Your task to perform on an android device: Show me popular videos on Youtube Image 0: 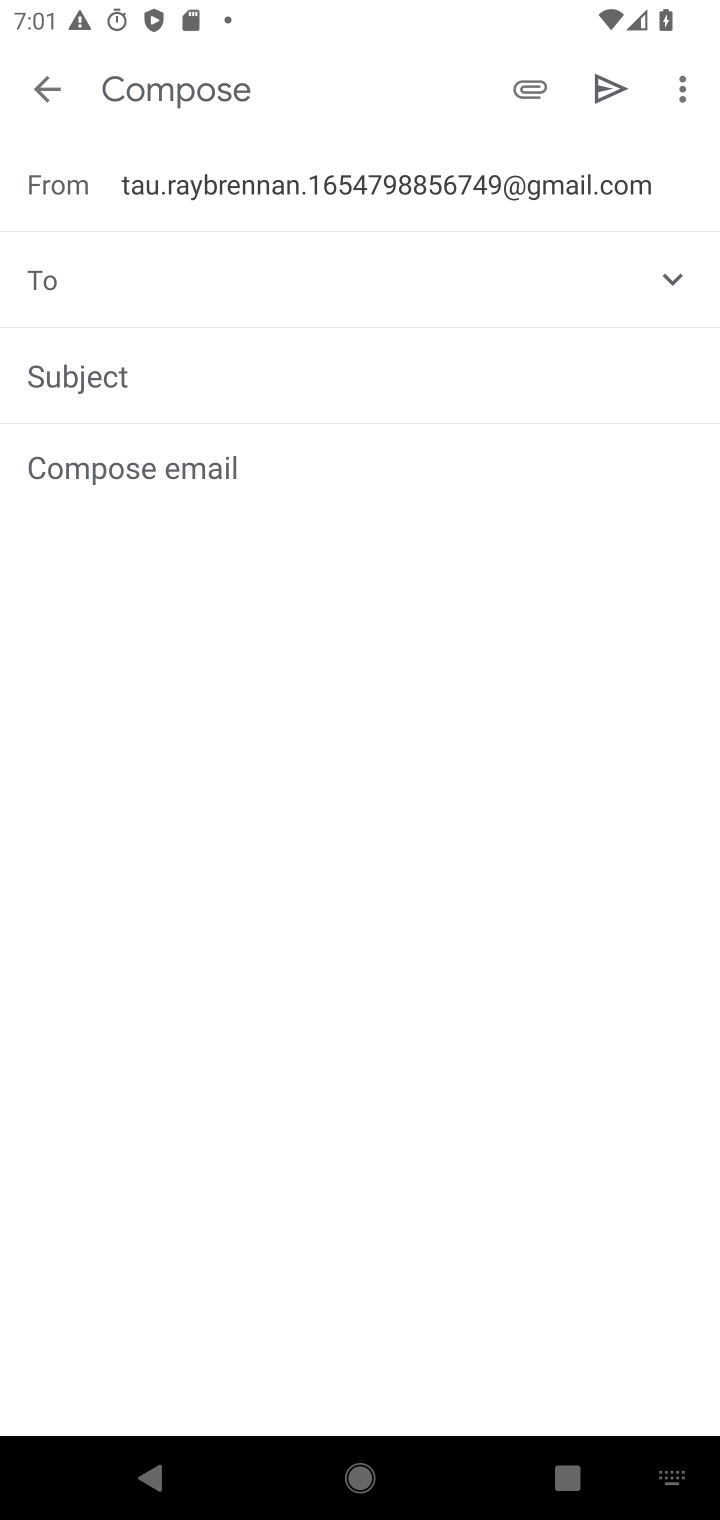
Step 0: press home button
Your task to perform on an android device: Show me popular videos on Youtube Image 1: 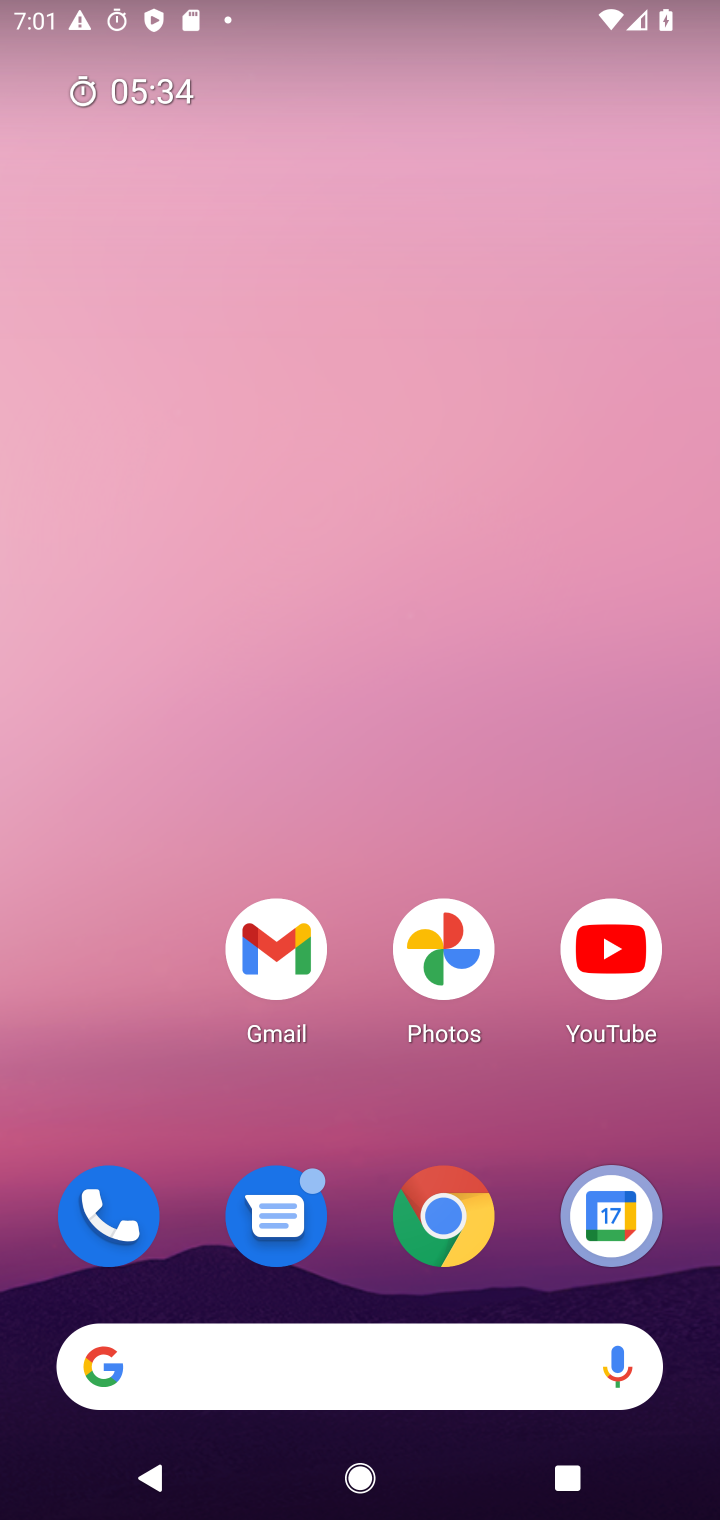
Step 1: drag from (538, 978) to (513, 66)
Your task to perform on an android device: Show me popular videos on Youtube Image 2: 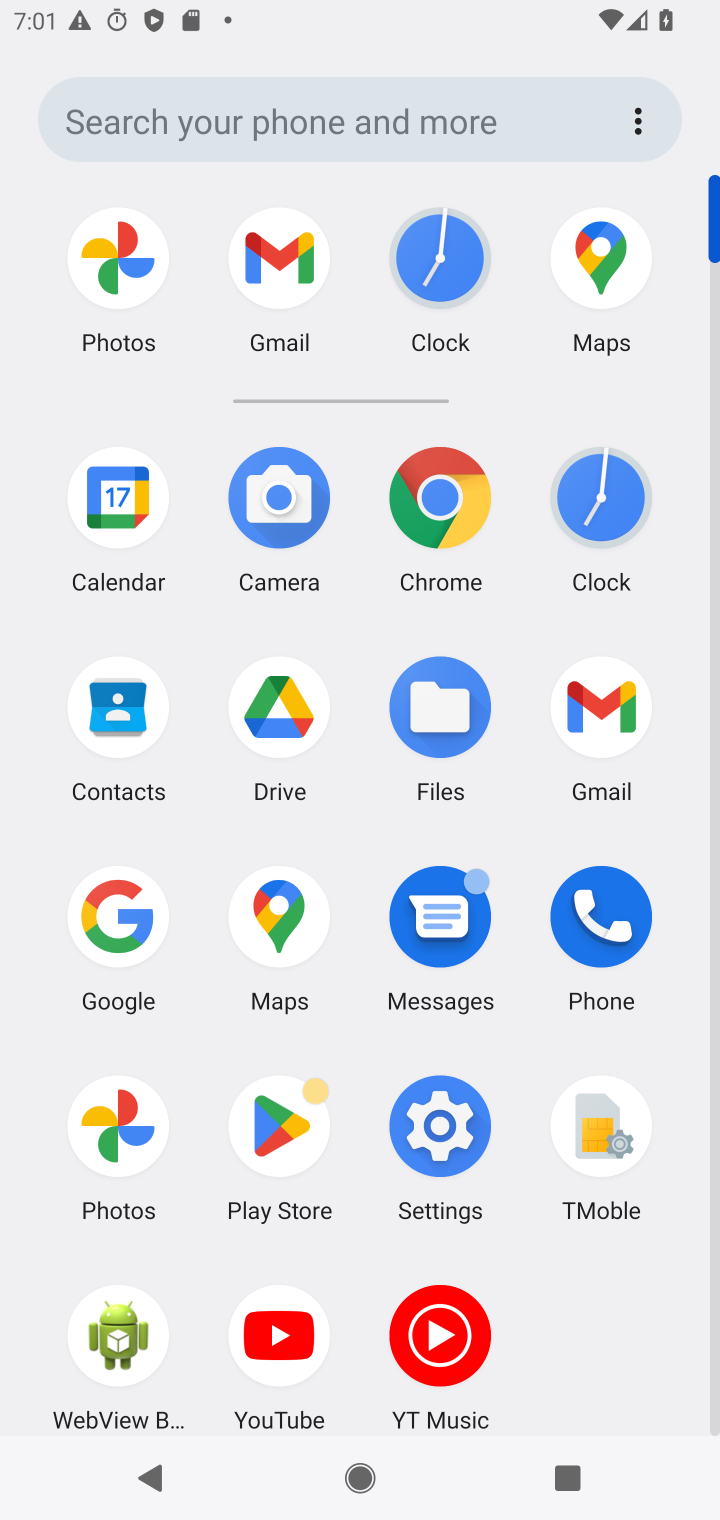
Step 2: click (282, 1339)
Your task to perform on an android device: Show me popular videos on Youtube Image 3: 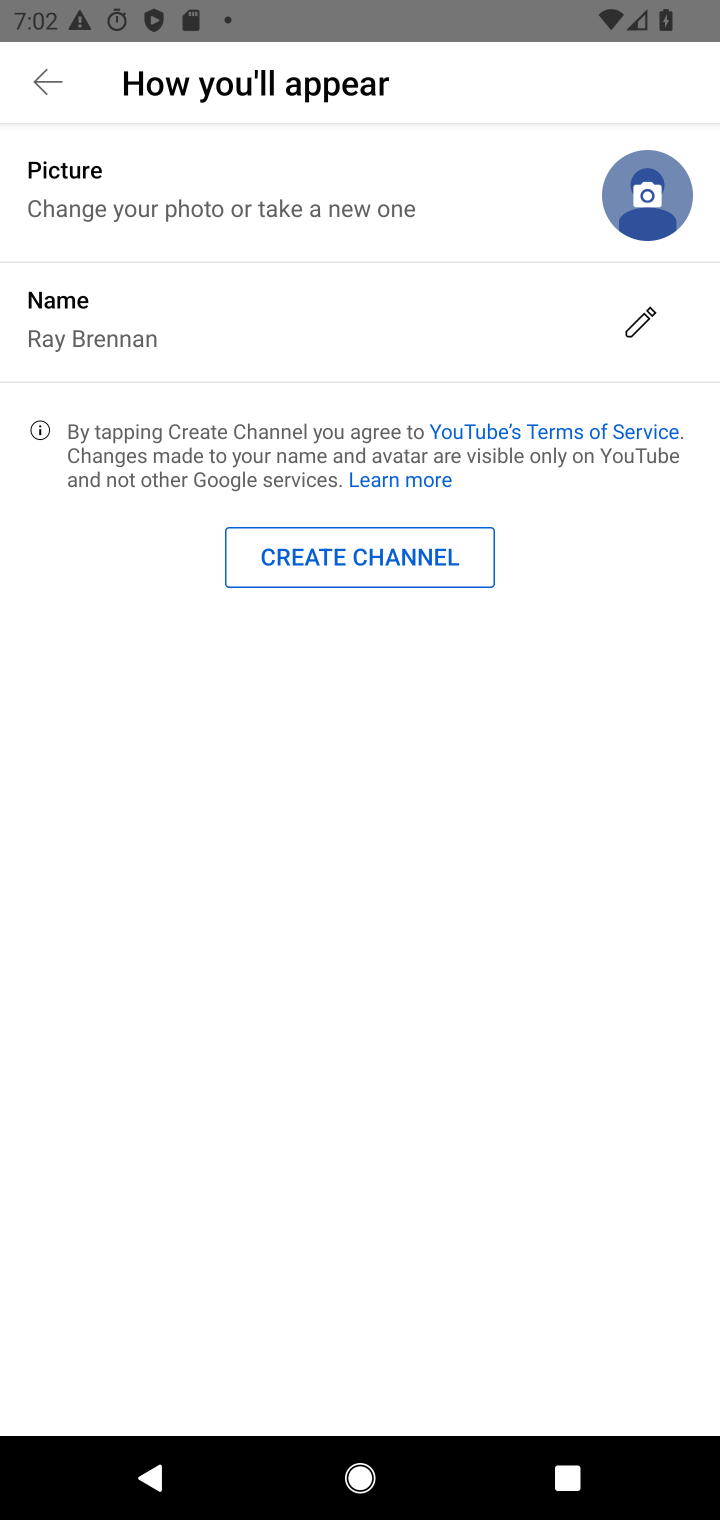
Step 3: click (39, 75)
Your task to perform on an android device: Show me popular videos on Youtube Image 4: 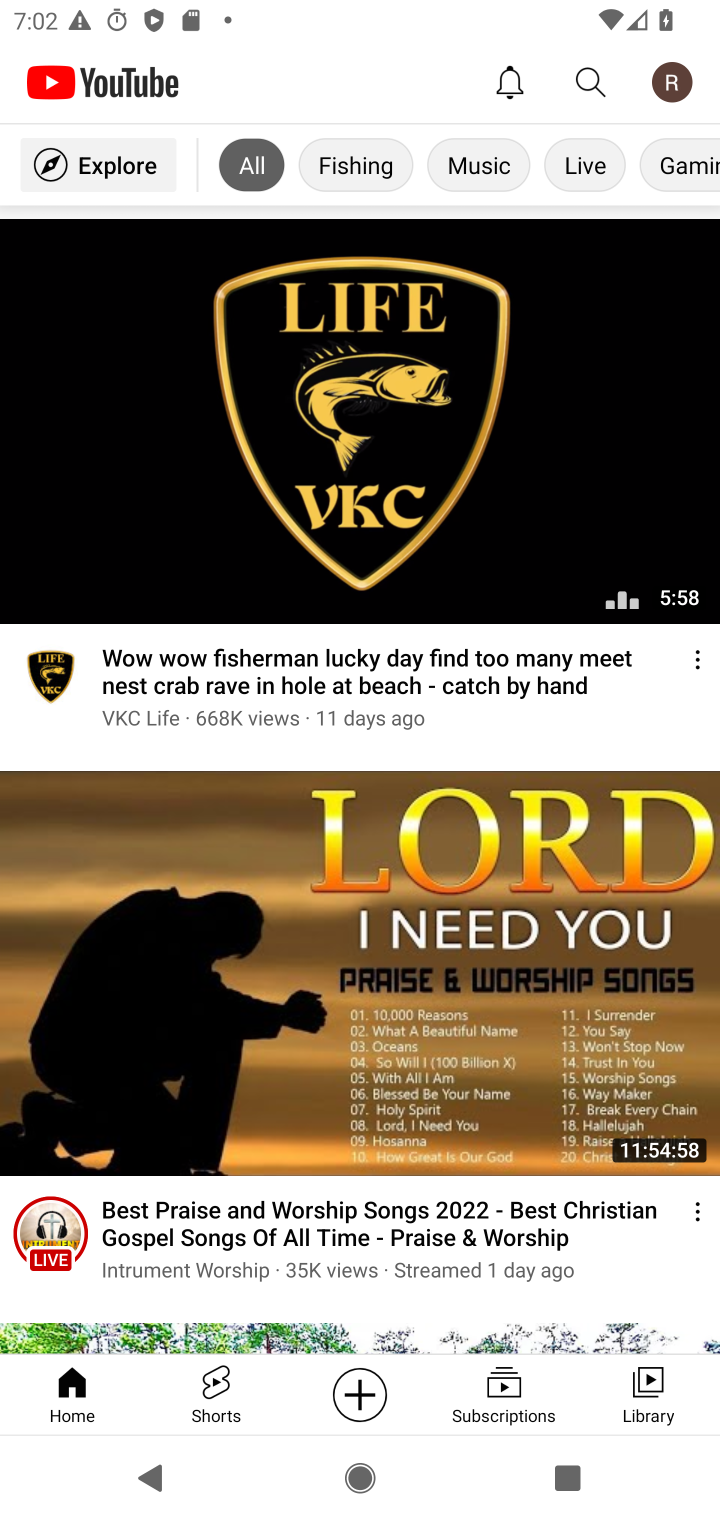
Step 4: click (580, 88)
Your task to perform on an android device: Show me popular videos on Youtube Image 5: 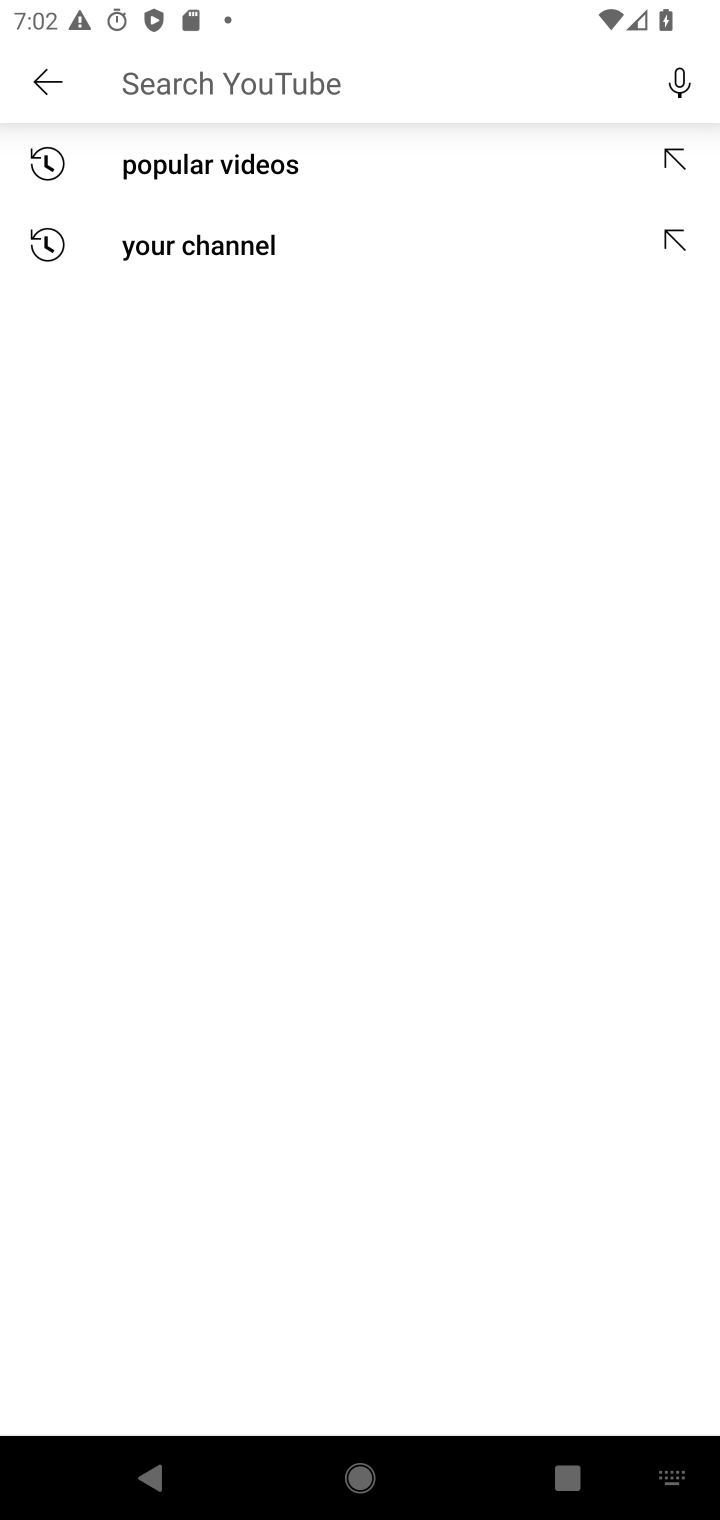
Step 5: click (232, 162)
Your task to perform on an android device: Show me popular videos on Youtube Image 6: 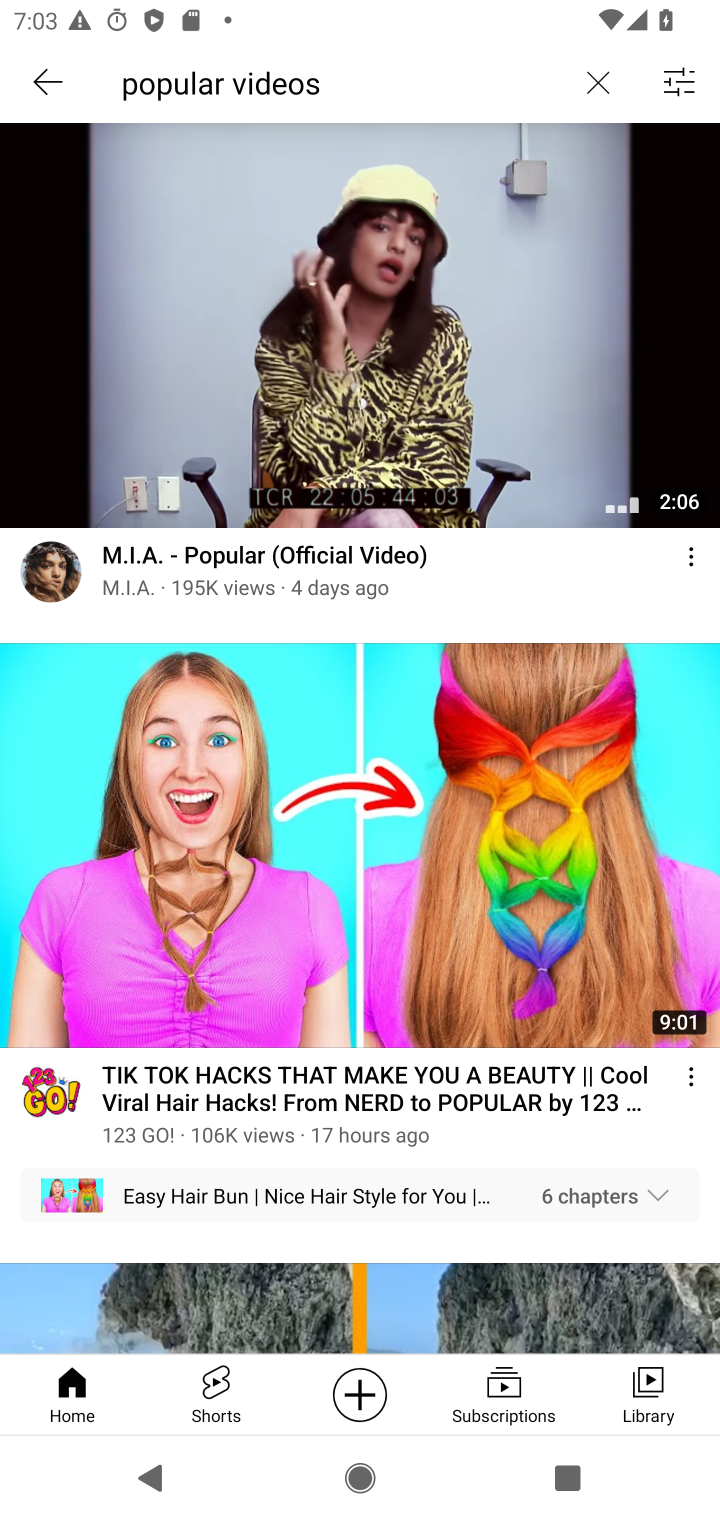
Step 6: task complete